Your task to perform on an android device: Open the calendar app, open the side menu, and click the "Day" option Image 0: 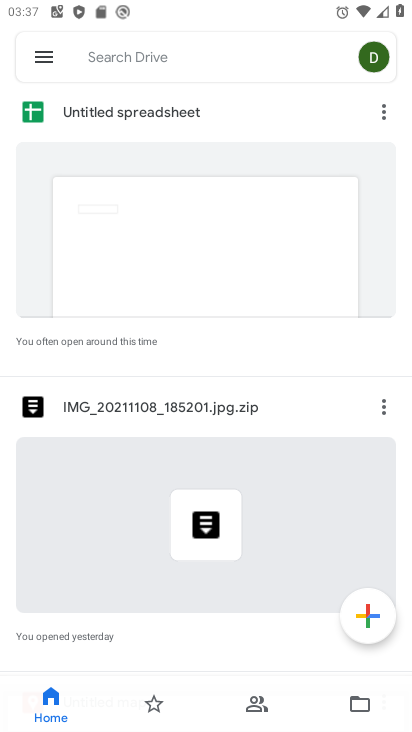
Step 0: press home button
Your task to perform on an android device: Open the calendar app, open the side menu, and click the "Day" option Image 1: 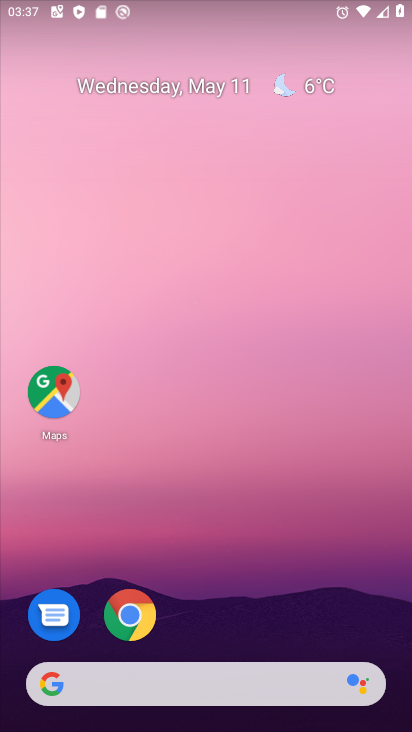
Step 1: drag from (266, 520) to (270, 130)
Your task to perform on an android device: Open the calendar app, open the side menu, and click the "Day" option Image 2: 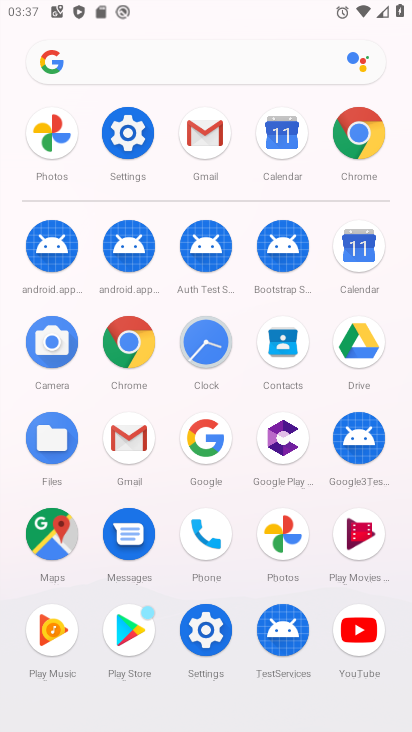
Step 2: click (352, 241)
Your task to perform on an android device: Open the calendar app, open the side menu, and click the "Day" option Image 3: 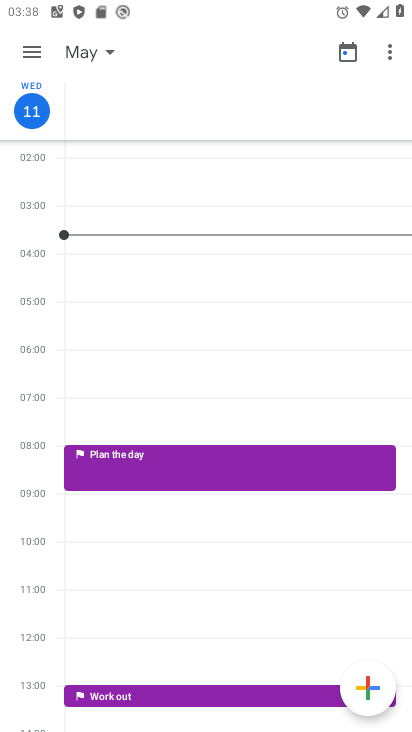
Step 3: click (38, 52)
Your task to perform on an android device: Open the calendar app, open the side menu, and click the "Day" option Image 4: 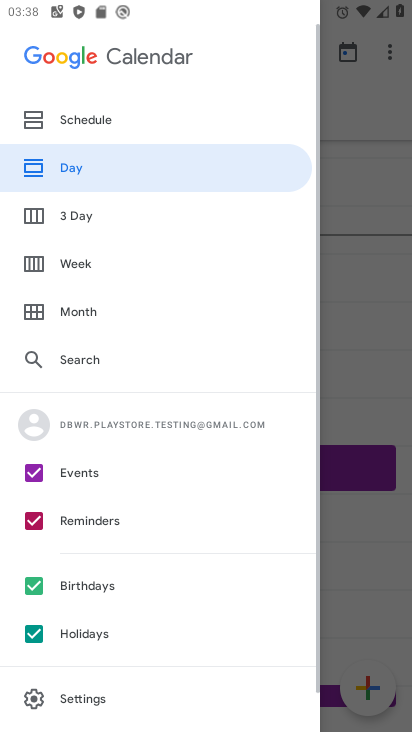
Step 4: click (72, 163)
Your task to perform on an android device: Open the calendar app, open the side menu, and click the "Day" option Image 5: 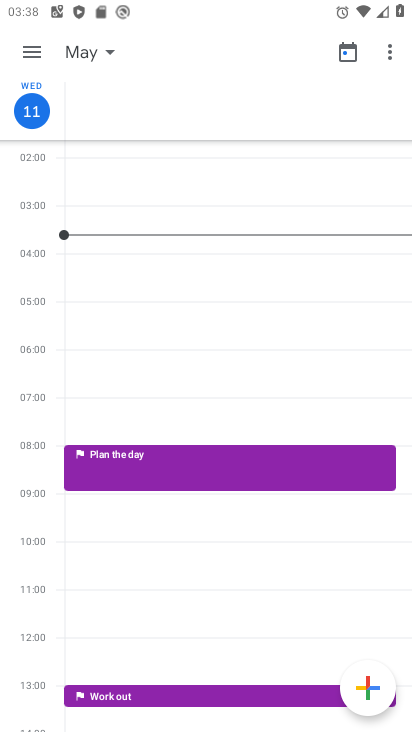
Step 5: task complete